Your task to perform on an android device: turn on priority inbox in the gmail app Image 0: 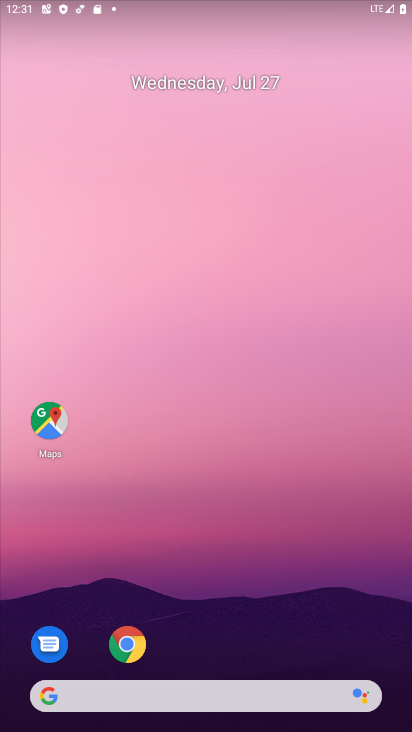
Step 0: drag from (287, 626) to (325, 2)
Your task to perform on an android device: turn on priority inbox in the gmail app Image 1: 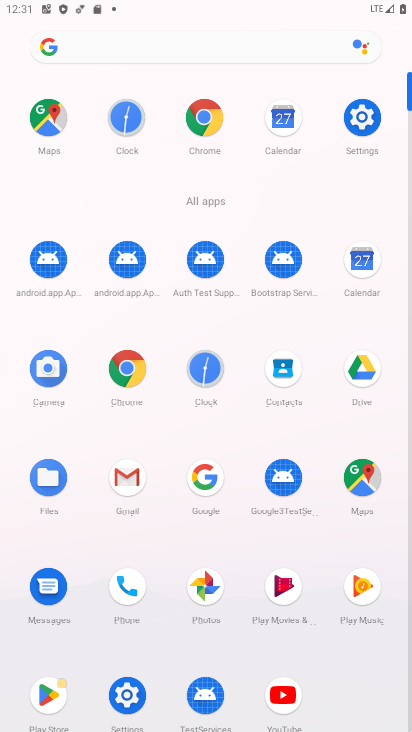
Step 1: click (125, 486)
Your task to perform on an android device: turn on priority inbox in the gmail app Image 2: 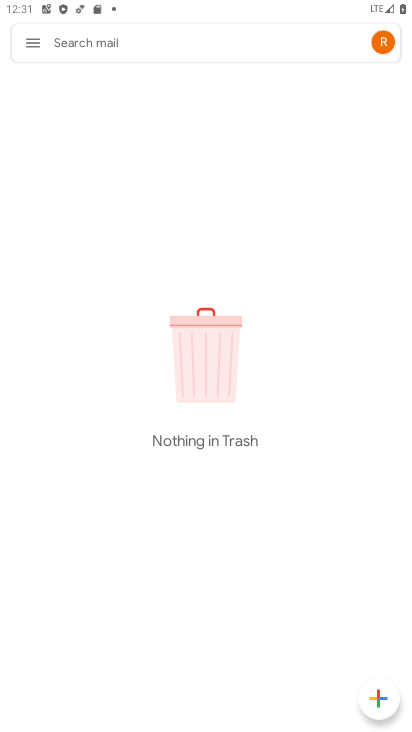
Step 2: click (31, 40)
Your task to perform on an android device: turn on priority inbox in the gmail app Image 3: 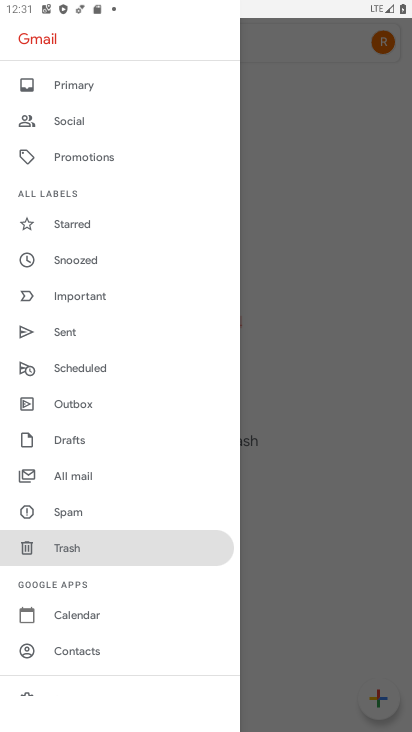
Step 3: drag from (83, 605) to (137, 338)
Your task to perform on an android device: turn on priority inbox in the gmail app Image 4: 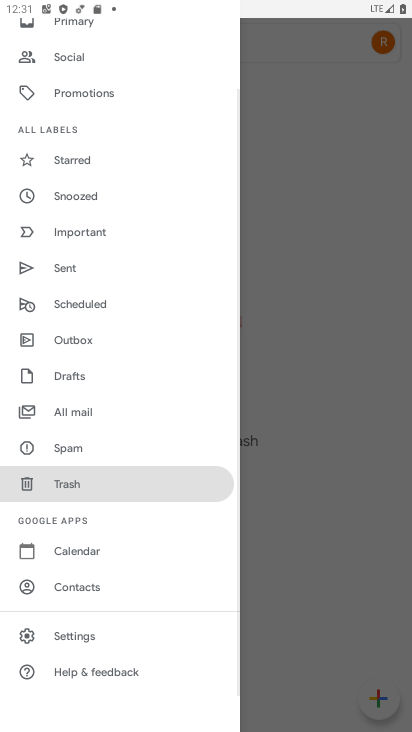
Step 4: click (66, 635)
Your task to perform on an android device: turn on priority inbox in the gmail app Image 5: 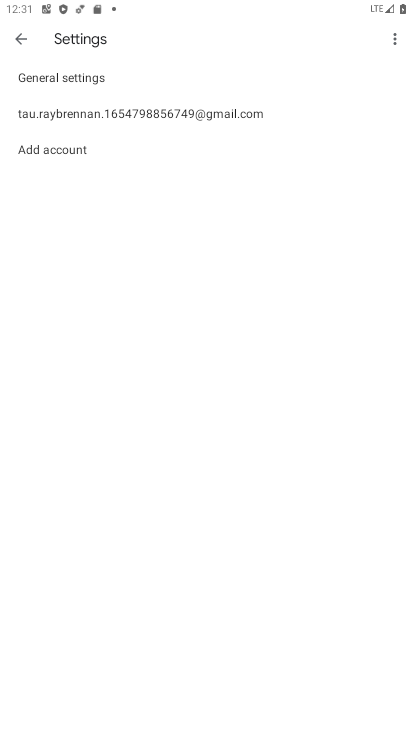
Step 5: click (106, 118)
Your task to perform on an android device: turn on priority inbox in the gmail app Image 6: 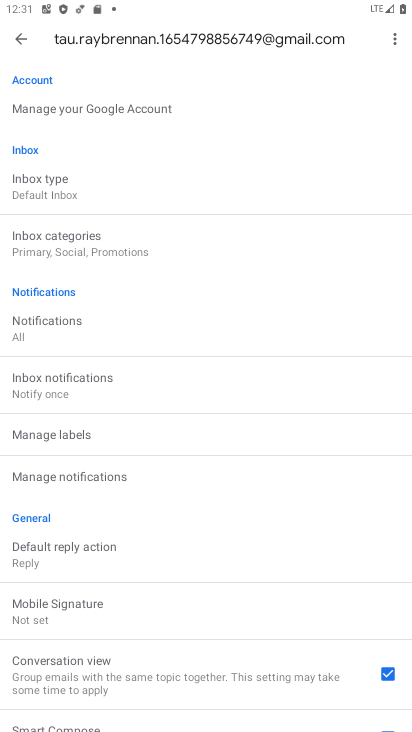
Step 6: click (84, 176)
Your task to perform on an android device: turn on priority inbox in the gmail app Image 7: 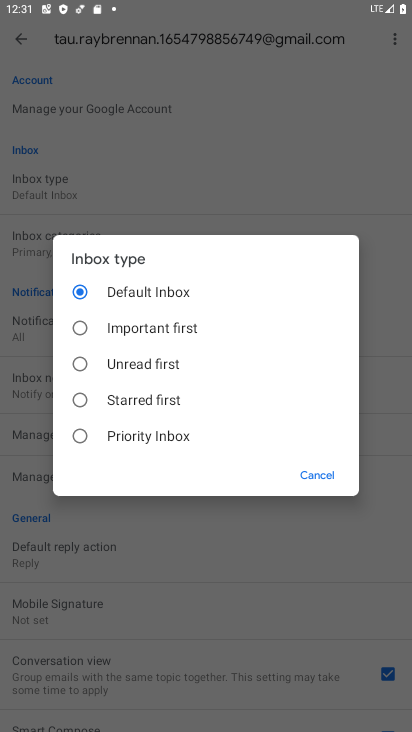
Step 7: click (102, 431)
Your task to perform on an android device: turn on priority inbox in the gmail app Image 8: 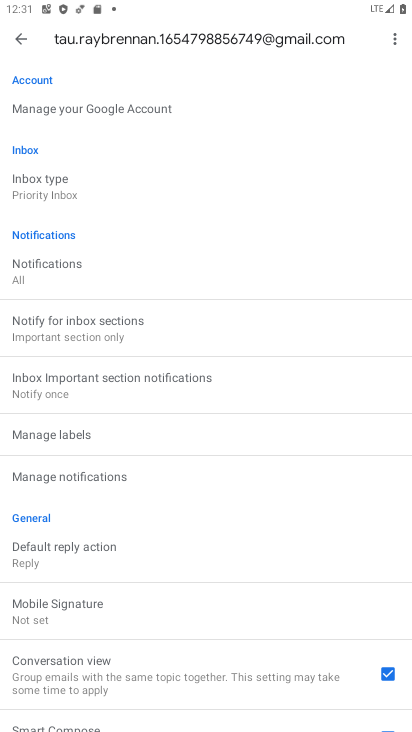
Step 8: task complete